Your task to perform on an android device: Open the calendar and show me this week's events? Image 0: 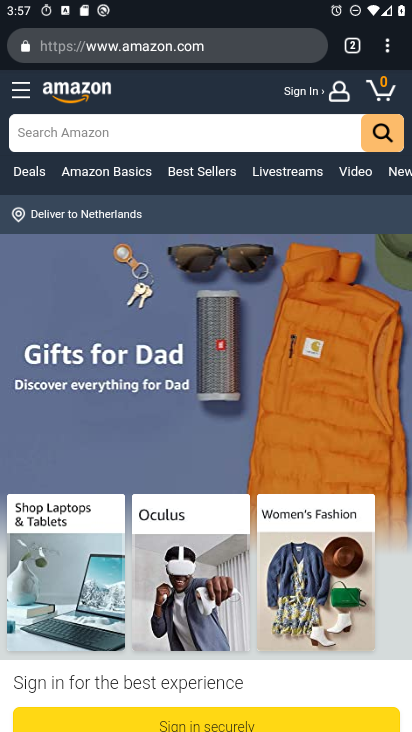
Step 0: press home button
Your task to perform on an android device: Open the calendar and show me this week's events? Image 1: 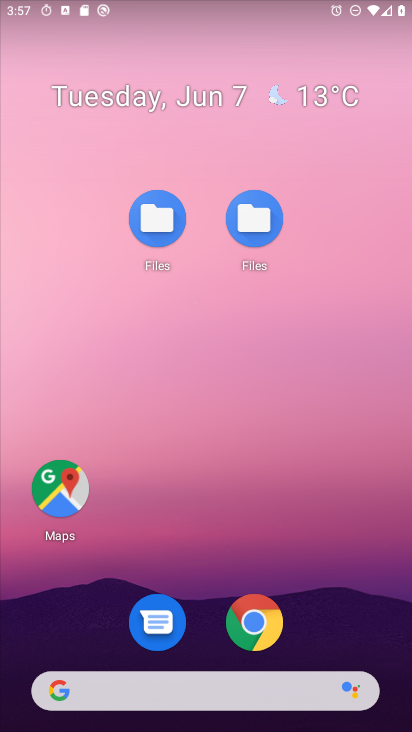
Step 1: click (352, 598)
Your task to perform on an android device: Open the calendar and show me this week's events? Image 2: 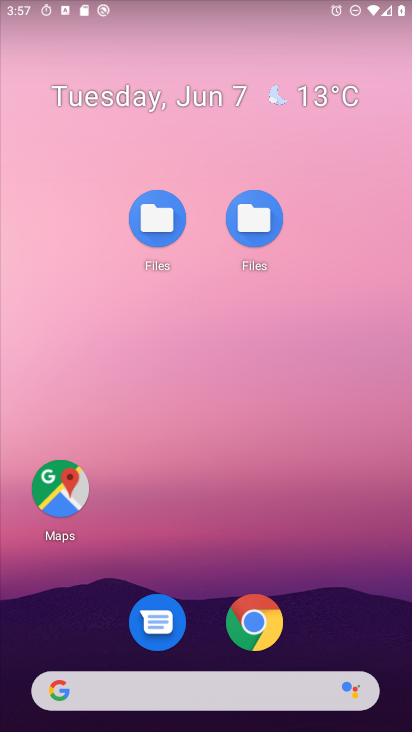
Step 2: drag from (352, 598) to (272, 50)
Your task to perform on an android device: Open the calendar and show me this week's events? Image 3: 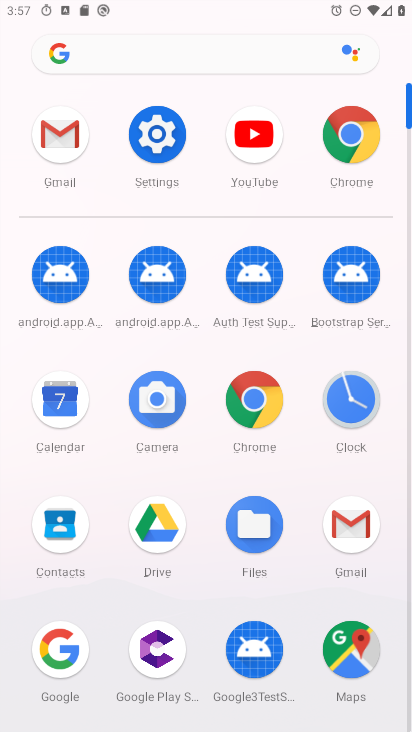
Step 3: click (62, 397)
Your task to perform on an android device: Open the calendar and show me this week's events? Image 4: 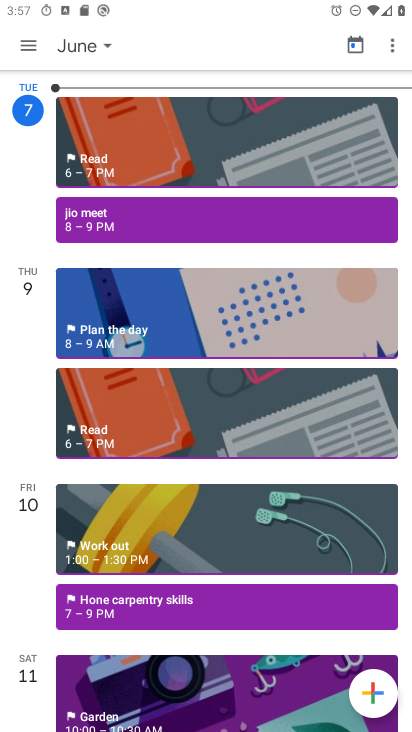
Step 4: click (20, 47)
Your task to perform on an android device: Open the calendar and show me this week's events? Image 5: 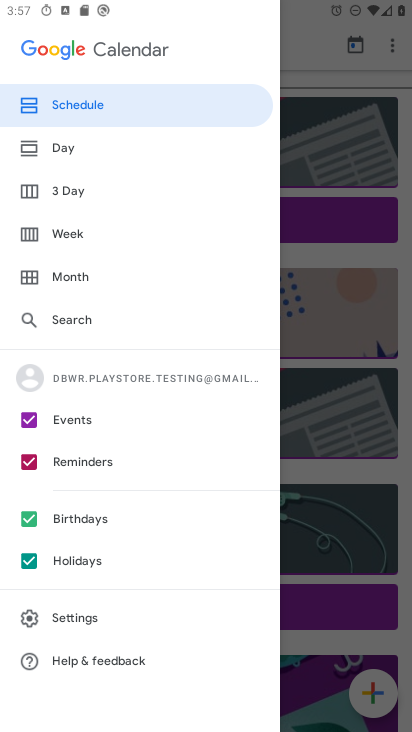
Step 5: click (66, 224)
Your task to perform on an android device: Open the calendar and show me this week's events? Image 6: 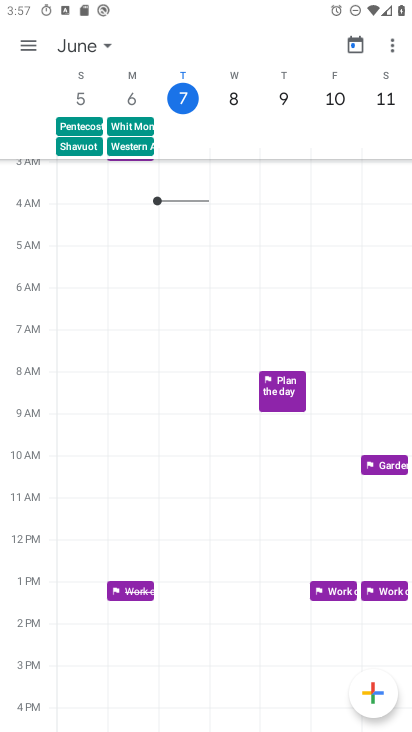
Step 6: task complete